Your task to perform on an android device: Open privacy settings Image 0: 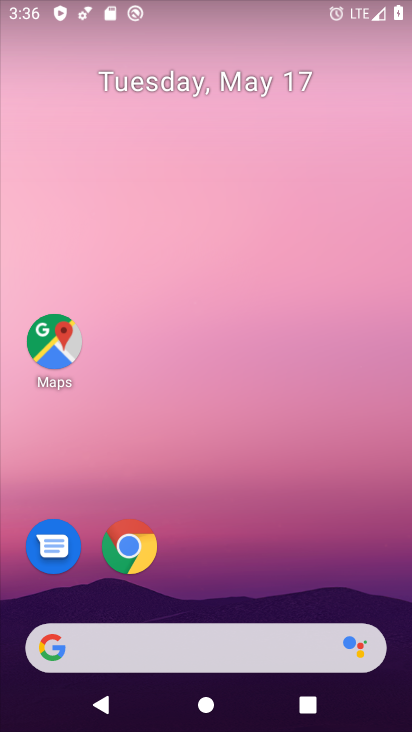
Step 0: press home button
Your task to perform on an android device: Open privacy settings Image 1: 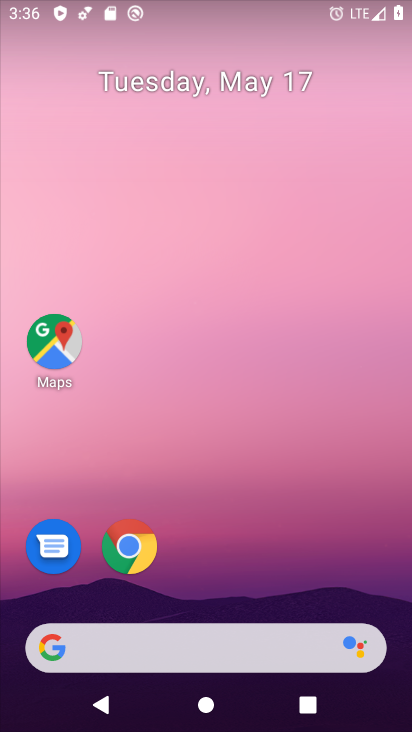
Step 1: drag from (296, 578) to (265, 122)
Your task to perform on an android device: Open privacy settings Image 2: 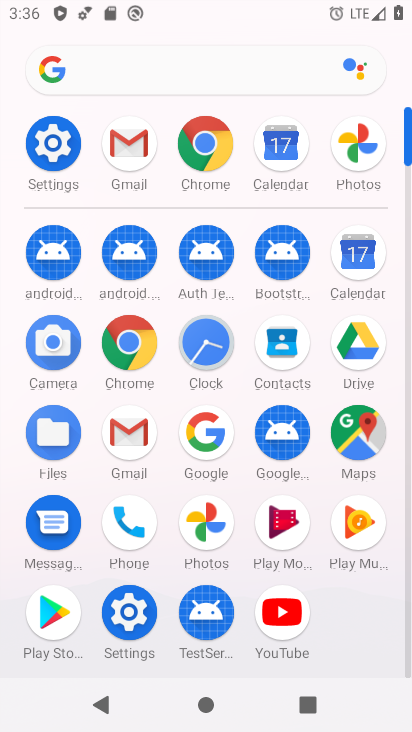
Step 2: click (76, 128)
Your task to perform on an android device: Open privacy settings Image 3: 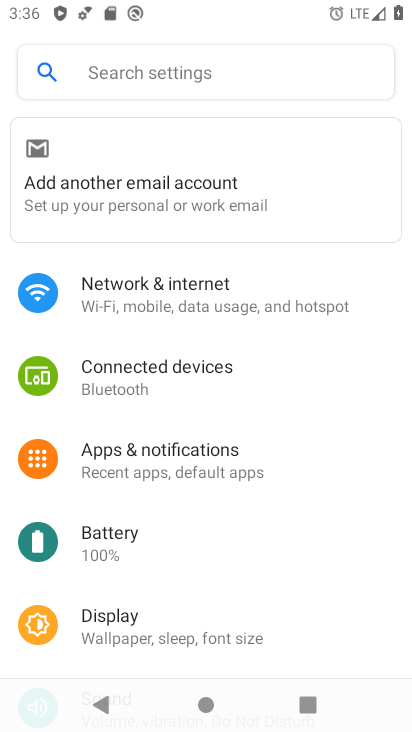
Step 3: drag from (102, 613) to (97, 308)
Your task to perform on an android device: Open privacy settings Image 4: 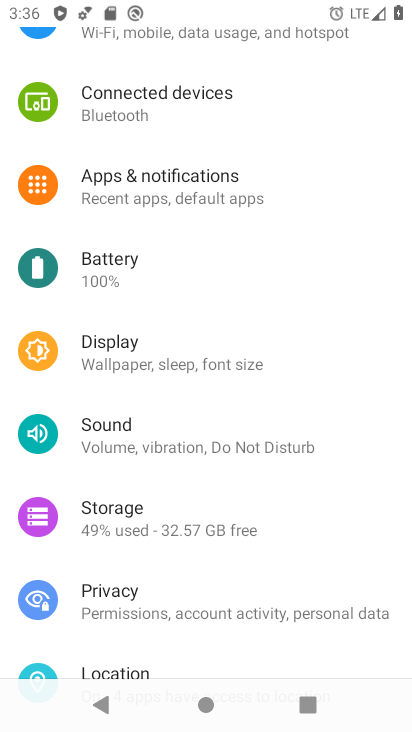
Step 4: drag from (127, 601) to (124, 427)
Your task to perform on an android device: Open privacy settings Image 5: 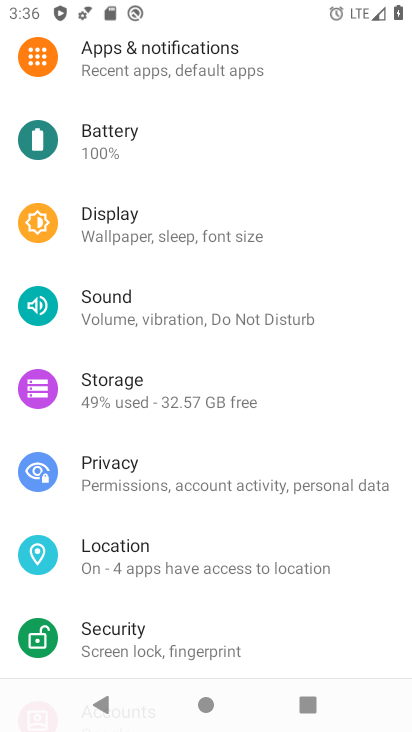
Step 5: click (134, 463)
Your task to perform on an android device: Open privacy settings Image 6: 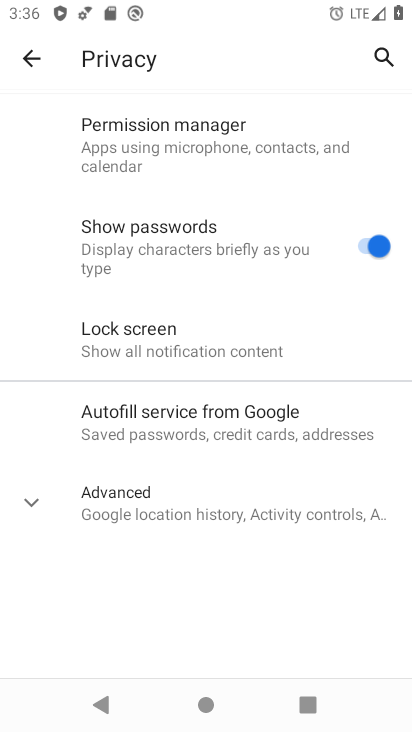
Step 6: task complete